Your task to perform on an android device: change timer sound Image 0: 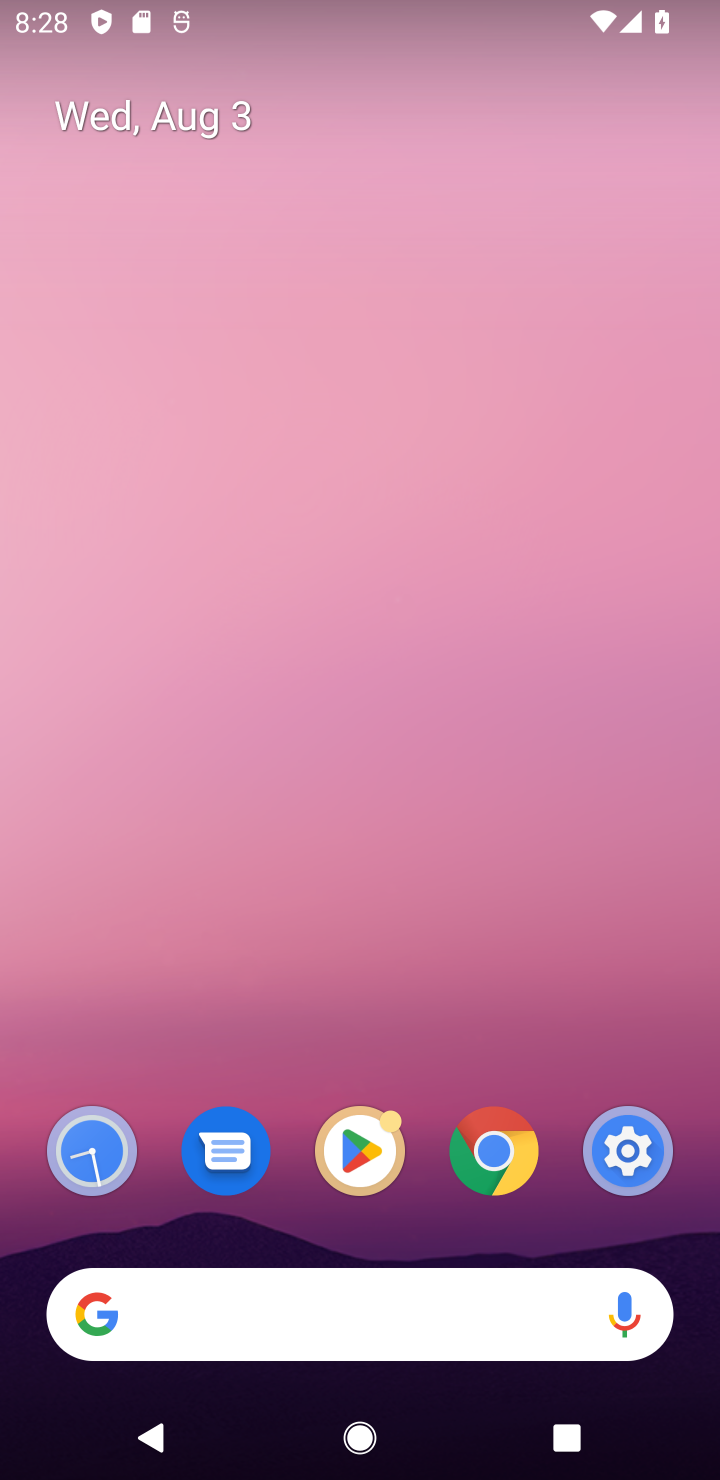
Step 0: drag from (231, 634) to (420, 19)
Your task to perform on an android device: change timer sound Image 1: 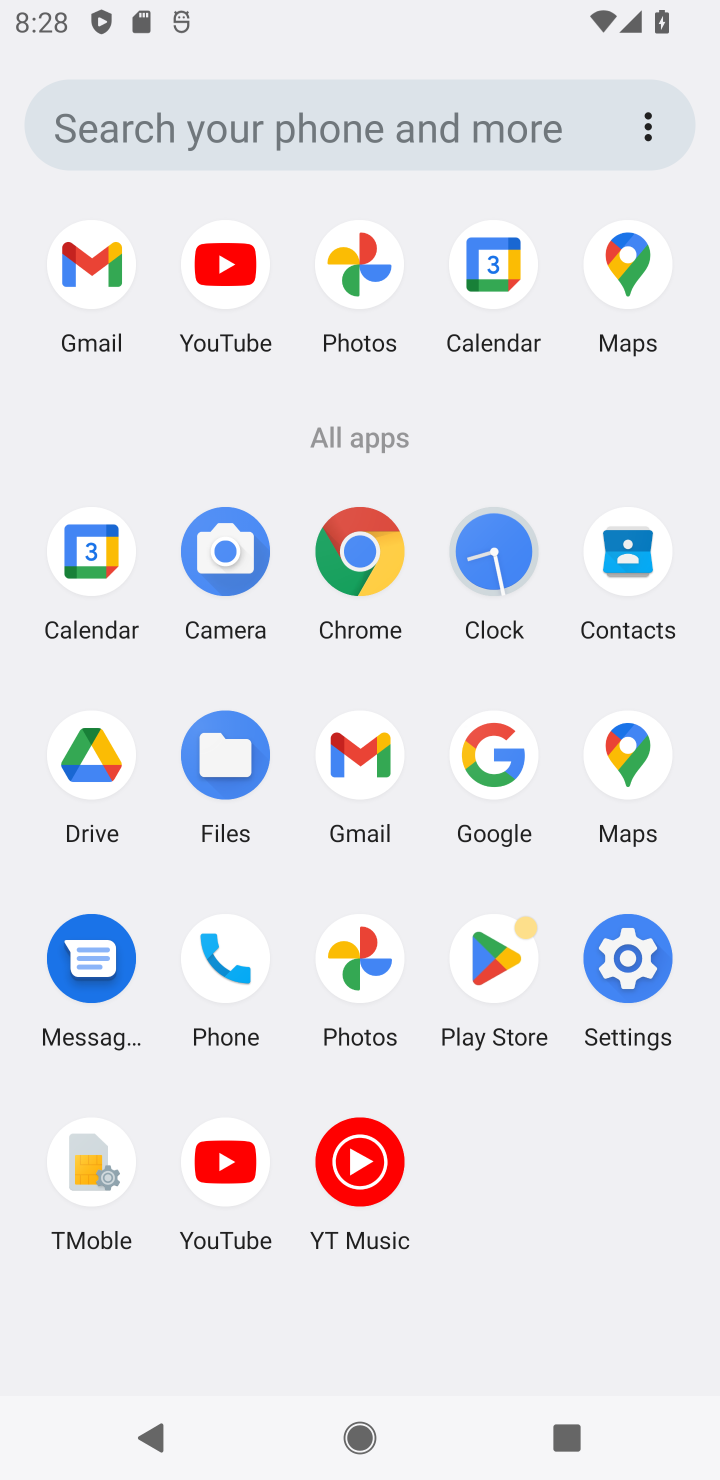
Step 1: click (488, 574)
Your task to perform on an android device: change timer sound Image 2: 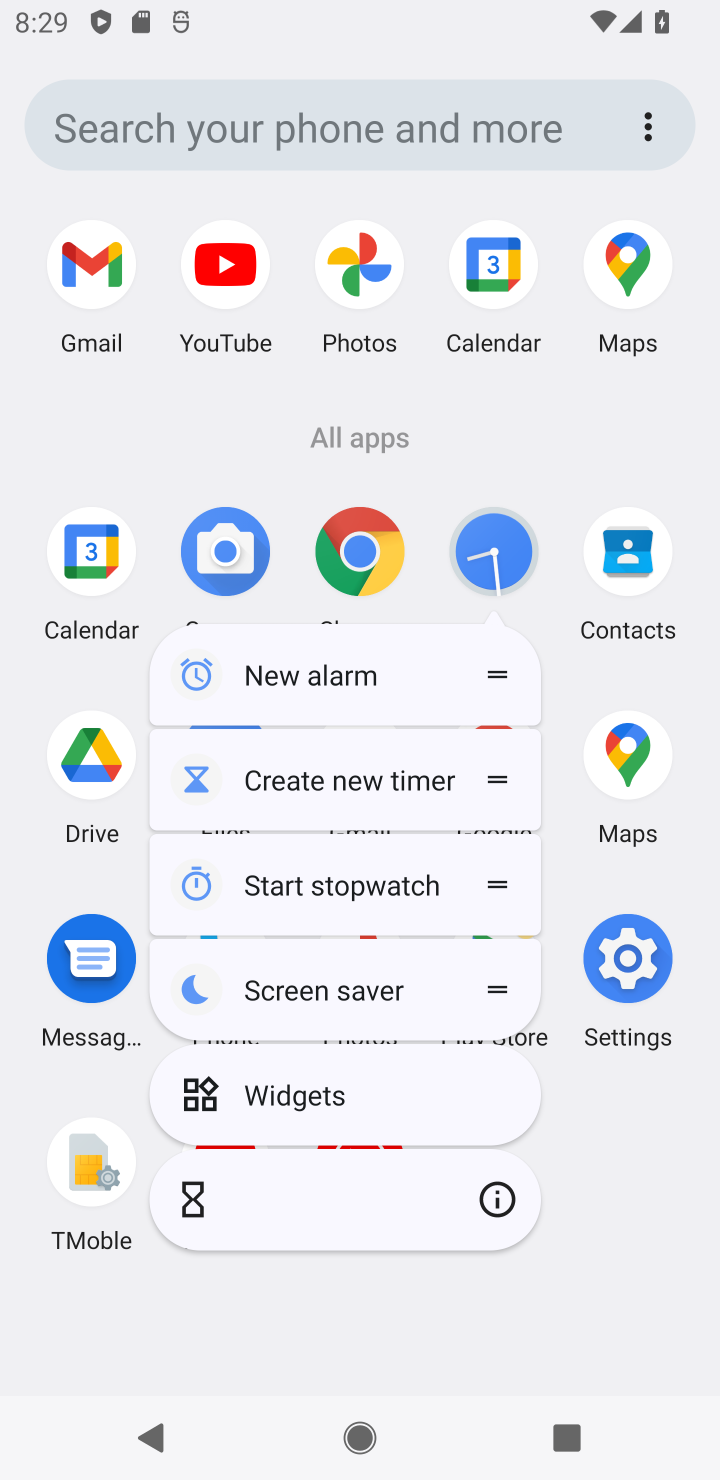
Step 2: click (521, 542)
Your task to perform on an android device: change timer sound Image 3: 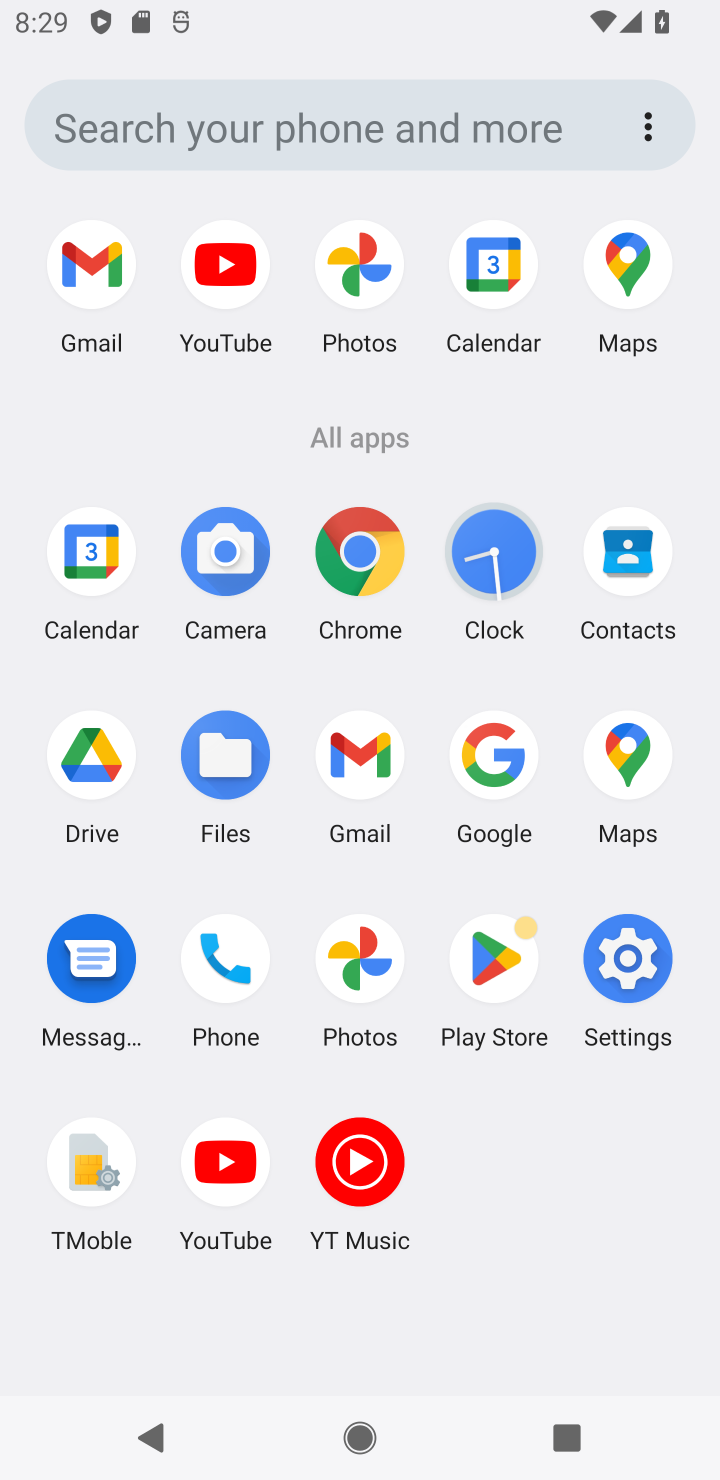
Step 3: click (496, 558)
Your task to perform on an android device: change timer sound Image 4: 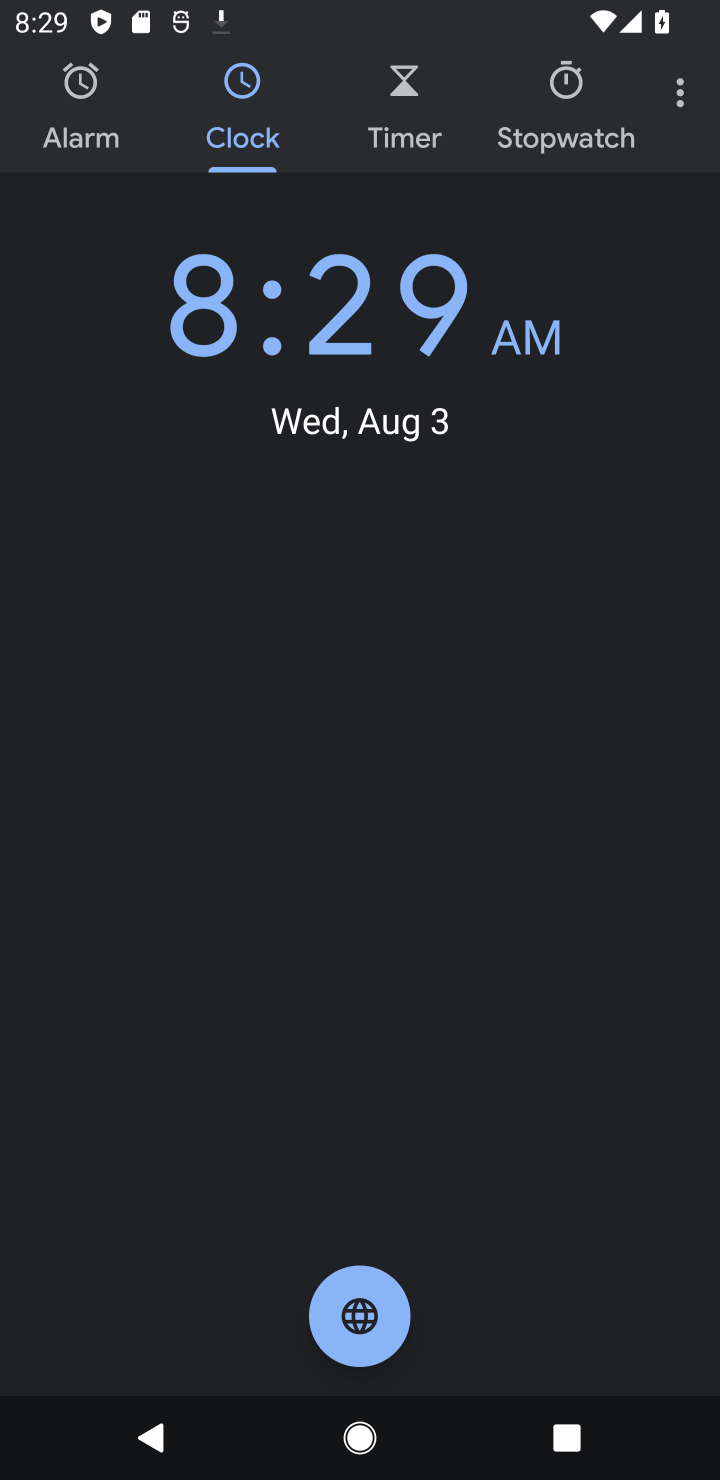
Step 4: click (677, 89)
Your task to perform on an android device: change timer sound Image 5: 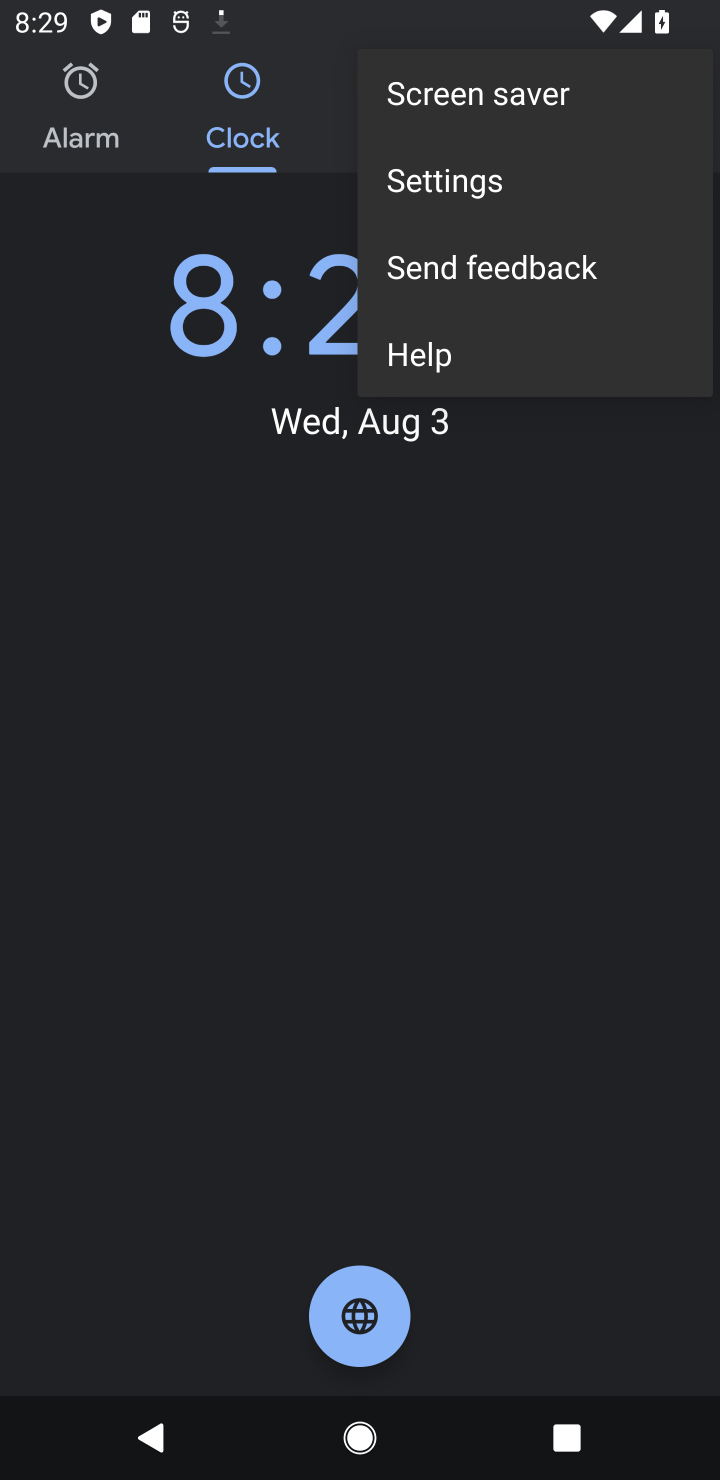
Step 5: click (494, 203)
Your task to perform on an android device: change timer sound Image 6: 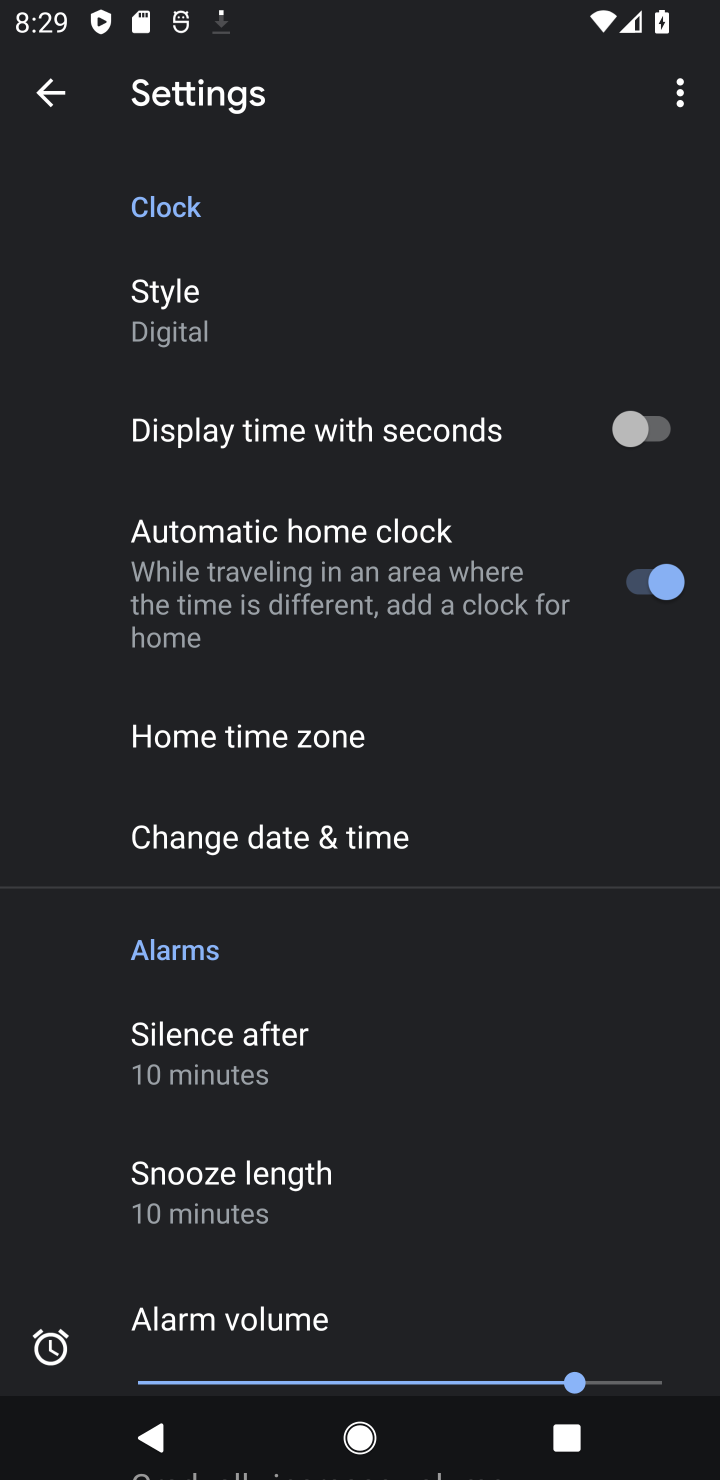
Step 6: drag from (348, 1202) to (350, 414)
Your task to perform on an android device: change timer sound Image 7: 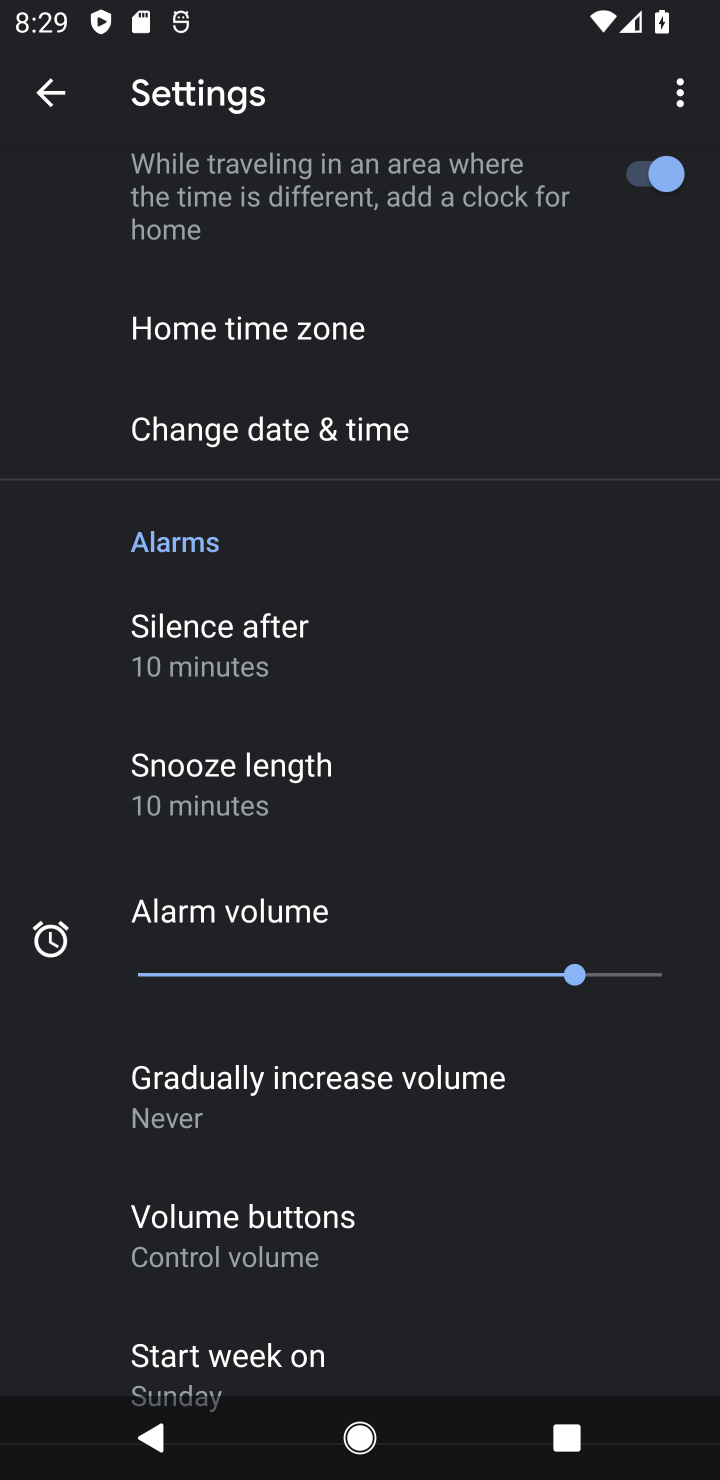
Step 7: drag from (367, 1176) to (416, 438)
Your task to perform on an android device: change timer sound Image 8: 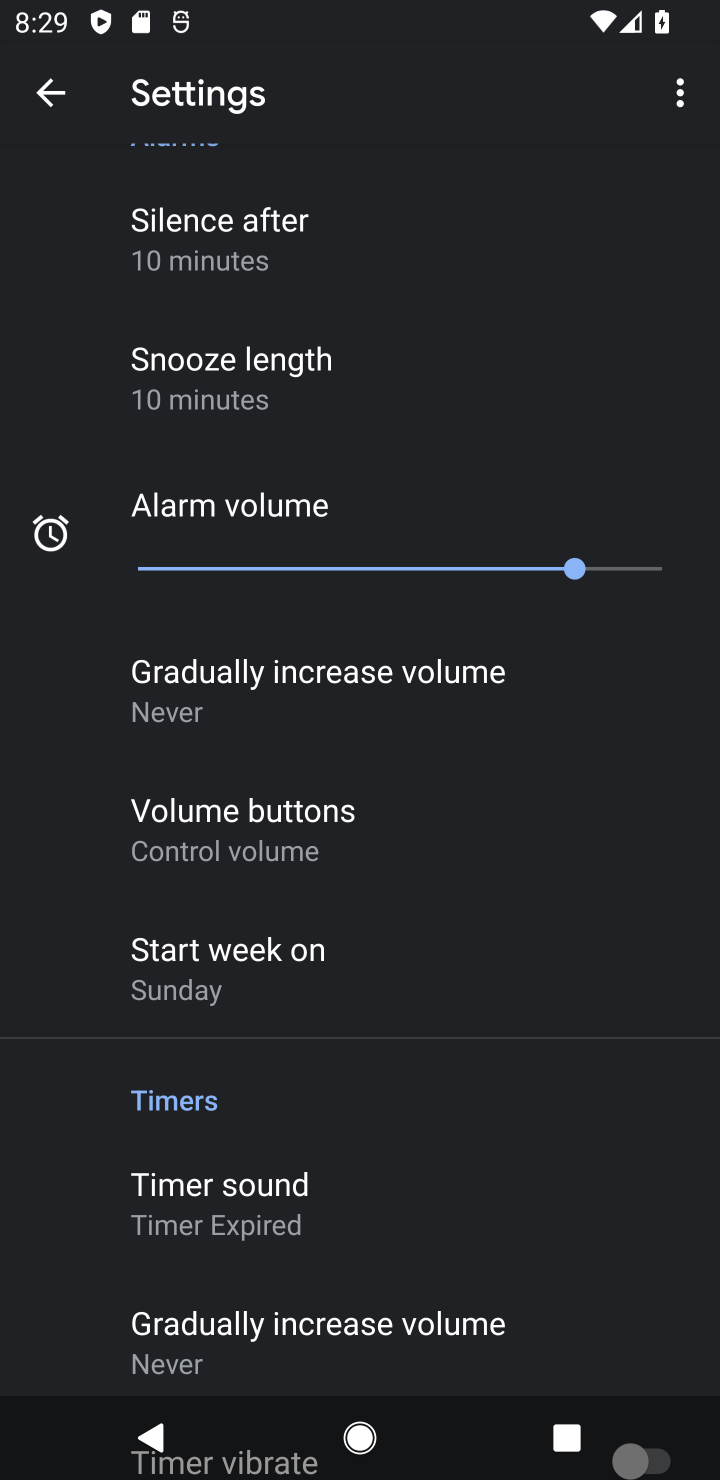
Step 8: click (282, 1190)
Your task to perform on an android device: change timer sound Image 9: 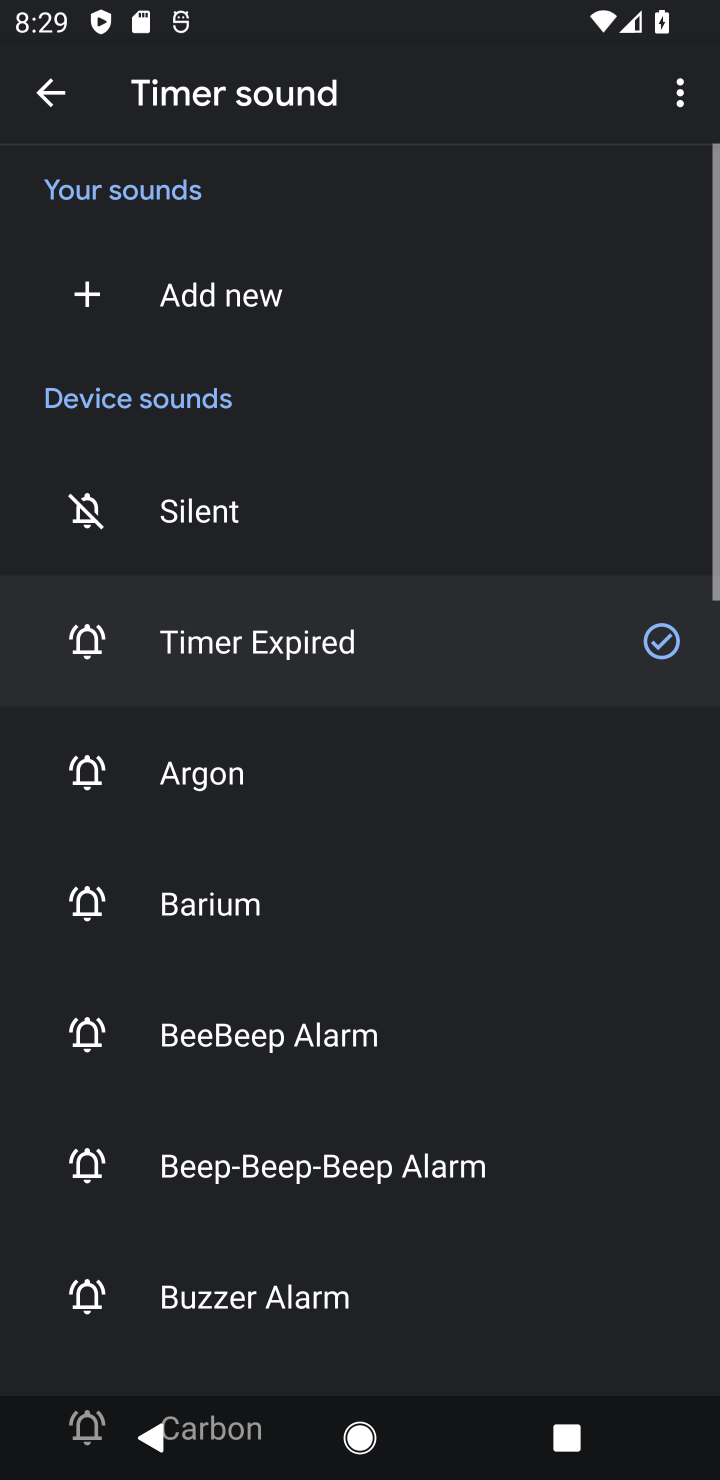
Step 9: click (197, 794)
Your task to perform on an android device: change timer sound Image 10: 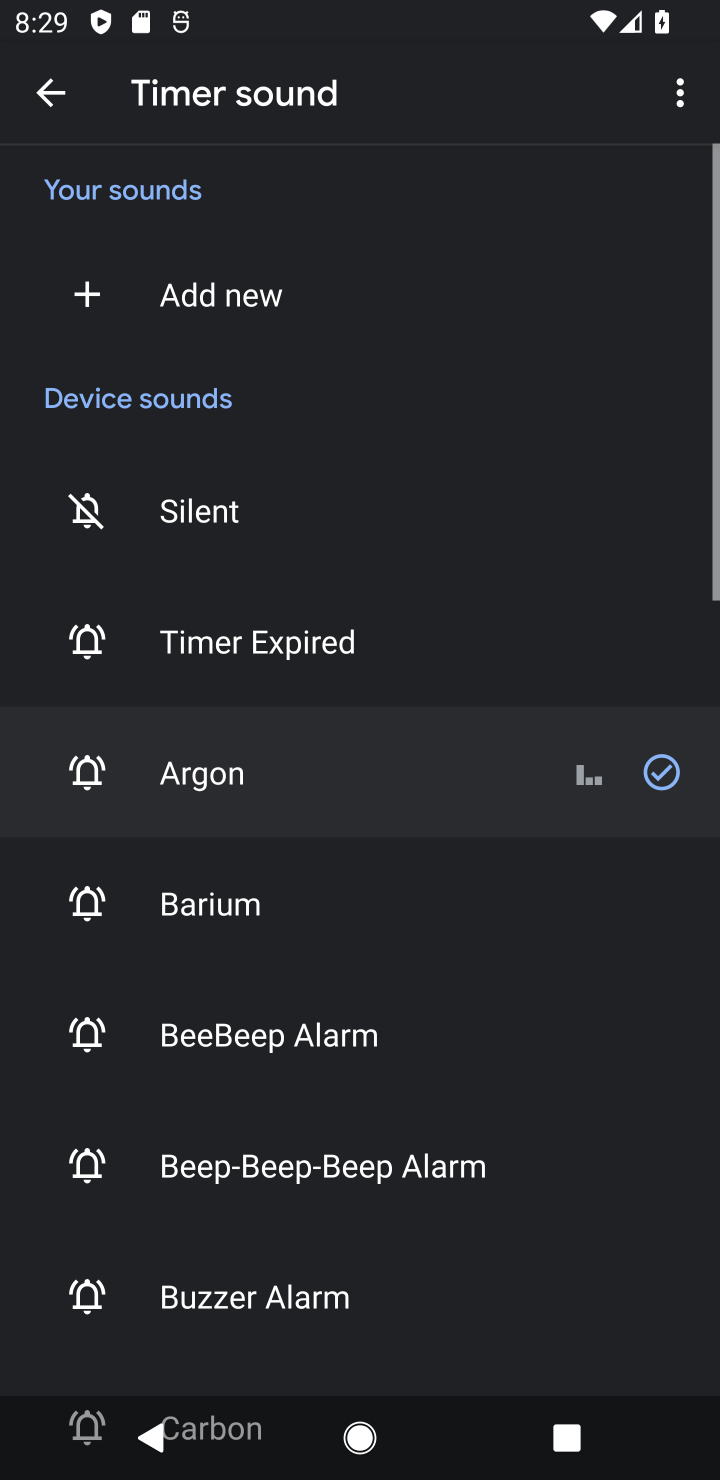
Step 10: task complete